Your task to perform on an android device: turn pop-ups off in chrome Image 0: 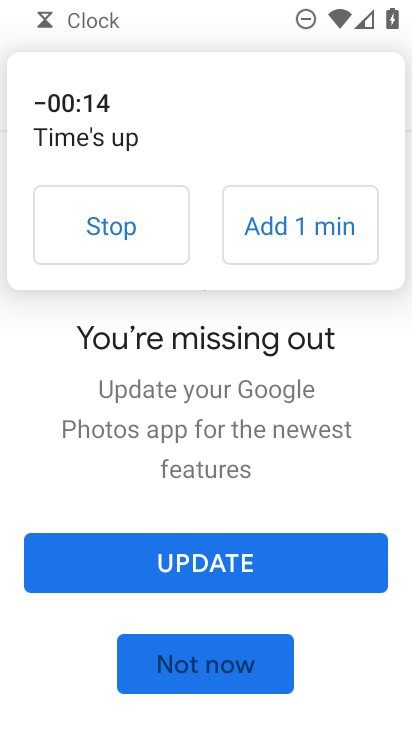
Step 0: press back button
Your task to perform on an android device: turn pop-ups off in chrome Image 1: 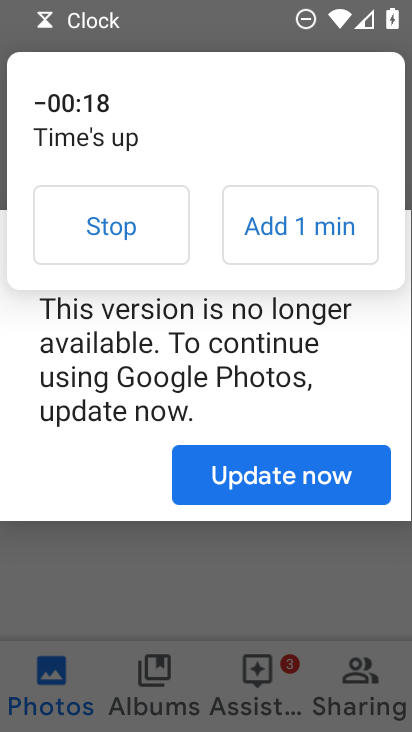
Step 1: press home button
Your task to perform on an android device: turn pop-ups off in chrome Image 2: 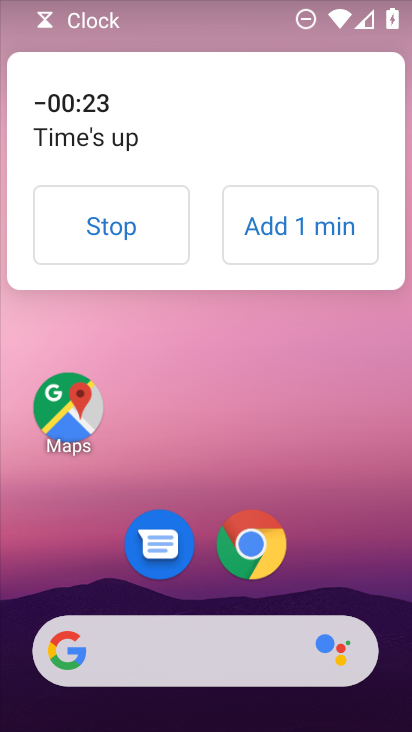
Step 2: drag from (350, 560) to (301, 68)
Your task to perform on an android device: turn pop-ups off in chrome Image 3: 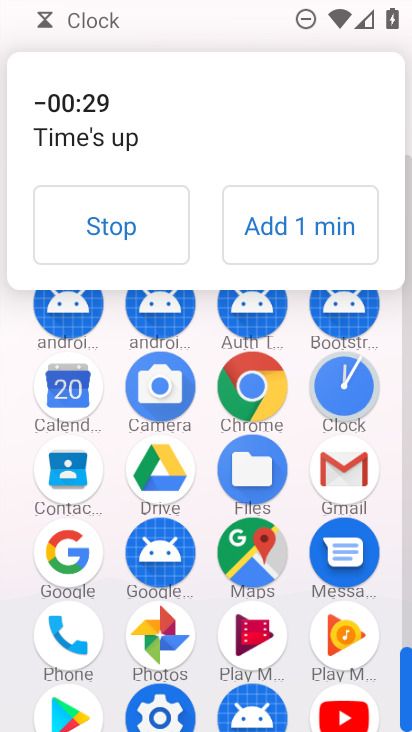
Step 3: click (252, 412)
Your task to perform on an android device: turn pop-ups off in chrome Image 4: 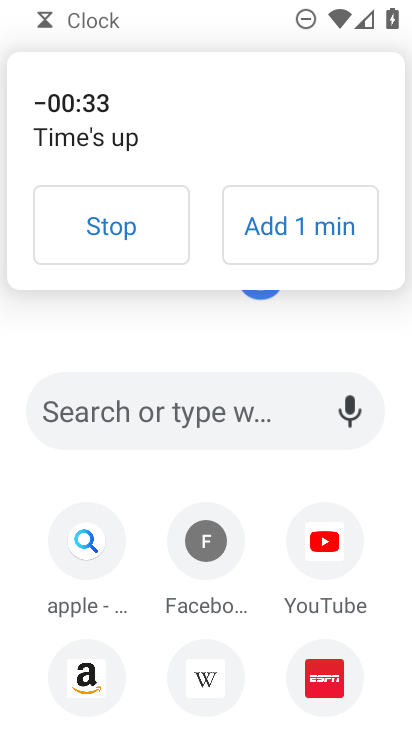
Step 4: click (111, 231)
Your task to perform on an android device: turn pop-ups off in chrome Image 5: 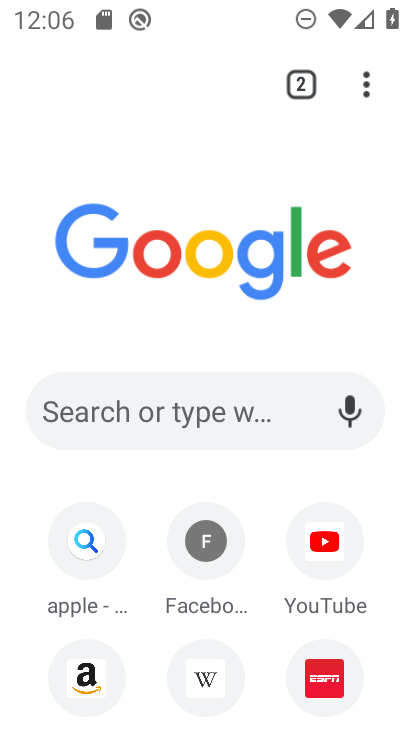
Step 5: click (368, 95)
Your task to perform on an android device: turn pop-ups off in chrome Image 6: 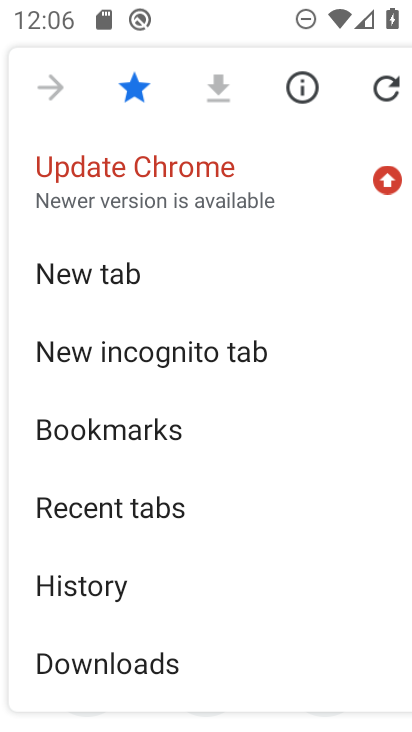
Step 6: drag from (317, 523) to (329, 376)
Your task to perform on an android device: turn pop-ups off in chrome Image 7: 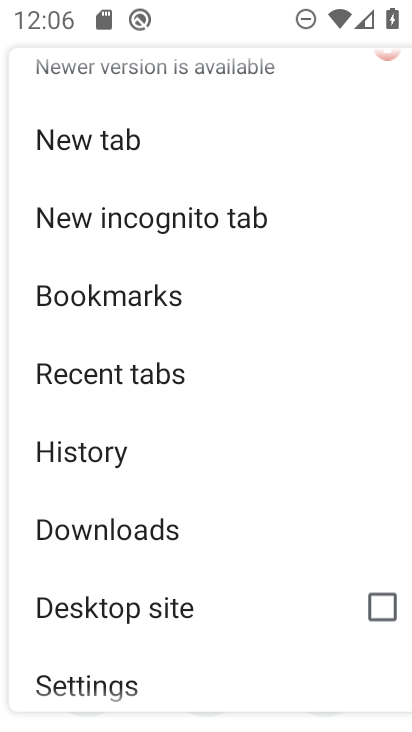
Step 7: drag from (311, 531) to (280, 359)
Your task to perform on an android device: turn pop-ups off in chrome Image 8: 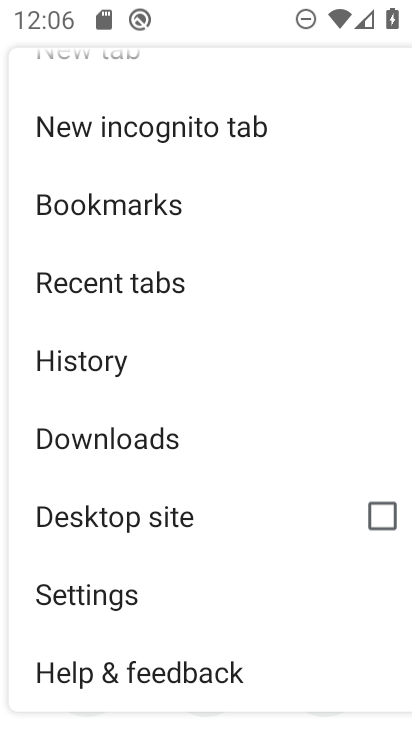
Step 8: drag from (299, 556) to (305, 418)
Your task to perform on an android device: turn pop-ups off in chrome Image 9: 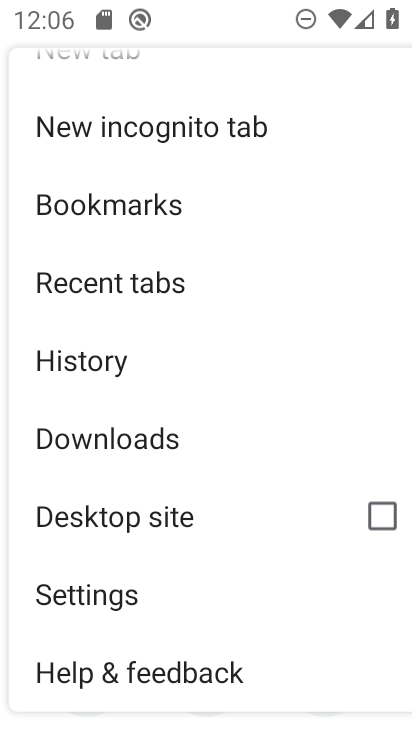
Step 9: click (145, 610)
Your task to perform on an android device: turn pop-ups off in chrome Image 10: 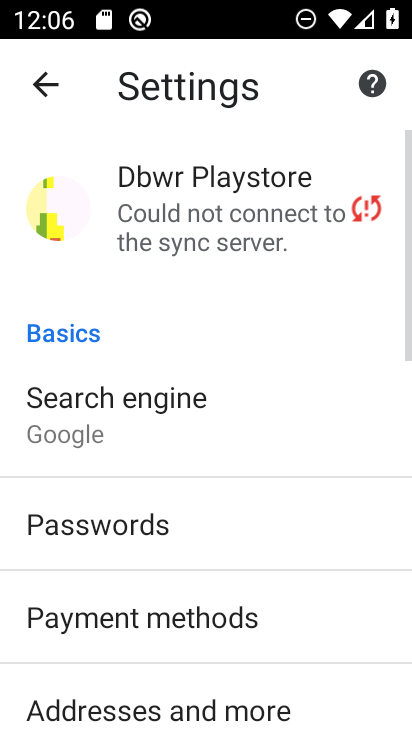
Step 10: drag from (329, 623) to (283, 478)
Your task to perform on an android device: turn pop-ups off in chrome Image 11: 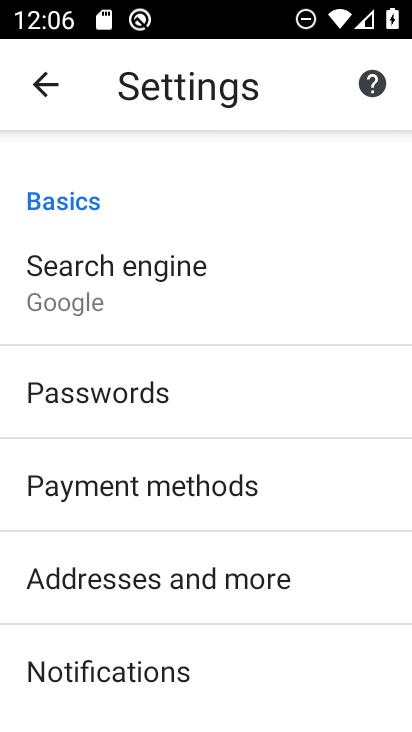
Step 11: drag from (339, 582) to (345, 464)
Your task to perform on an android device: turn pop-ups off in chrome Image 12: 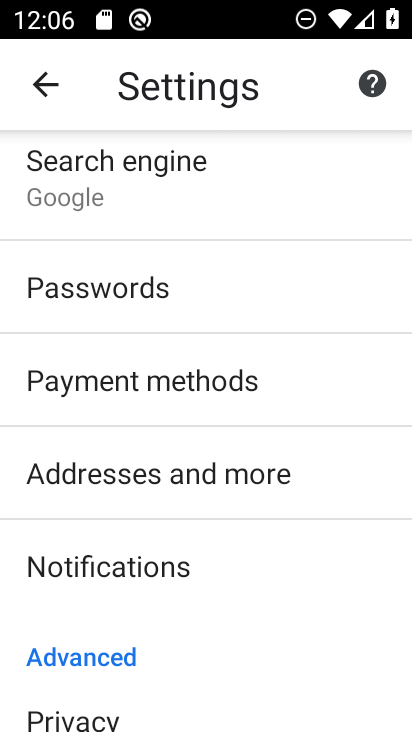
Step 12: drag from (347, 574) to (336, 472)
Your task to perform on an android device: turn pop-ups off in chrome Image 13: 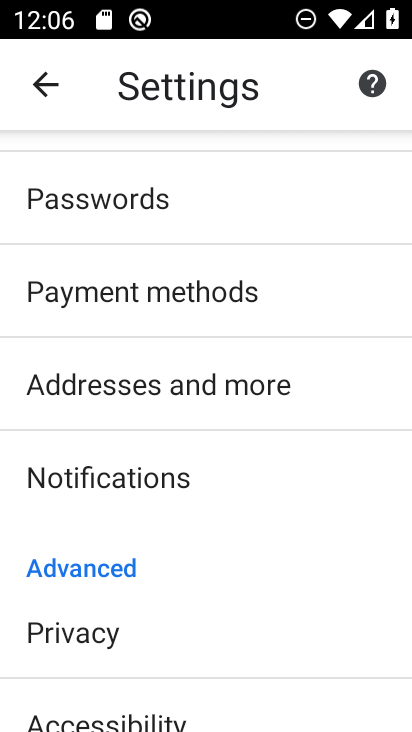
Step 13: drag from (312, 580) to (317, 428)
Your task to perform on an android device: turn pop-ups off in chrome Image 14: 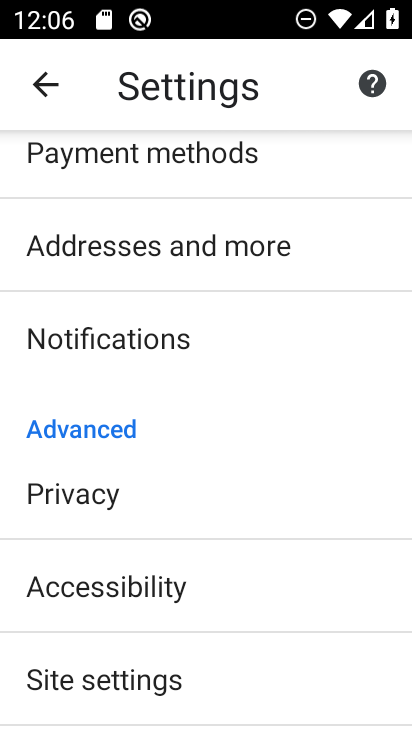
Step 14: drag from (295, 583) to (318, 451)
Your task to perform on an android device: turn pop-ups off in chrome Image 15: 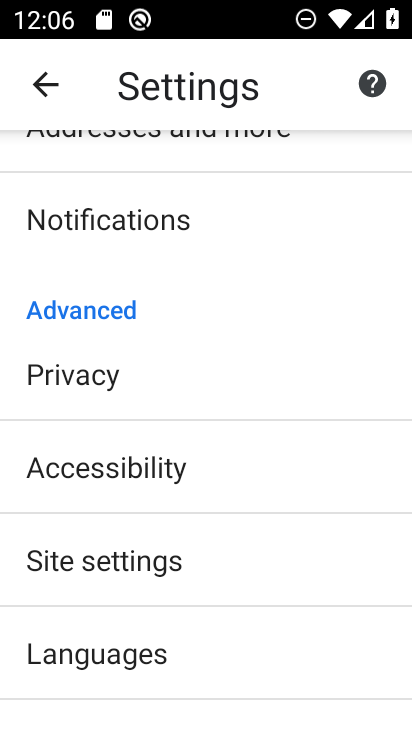
Step 15: drag from (337, 626) to (361, 498)
Your task to perform on an android device: turn pop-ups off in chrome Image 16: 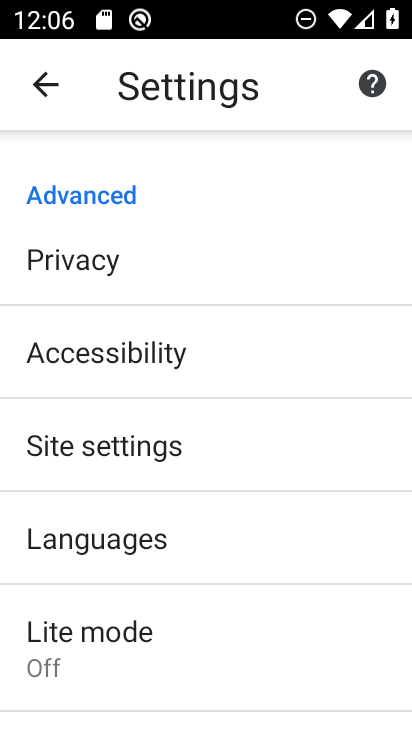
Step 16: drag from (337, 644) to (323, 444)
Your task to perform on an android device: turn pop-ups off in chrome Image 17: 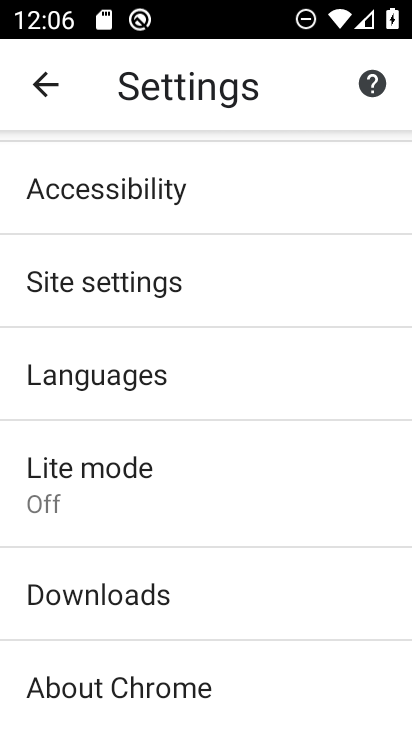
Step 17: drag from (304, 571) to (302, 464)
Your task to perform on an android device: turn pop-ups off in chrome Image 18: 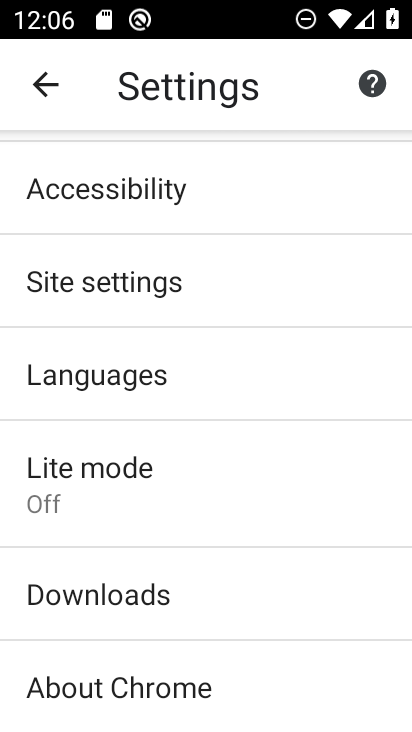
Step 18: click (160, 282)
Your task to perform on an android device: turn pop-ups off in chrome Image 19: 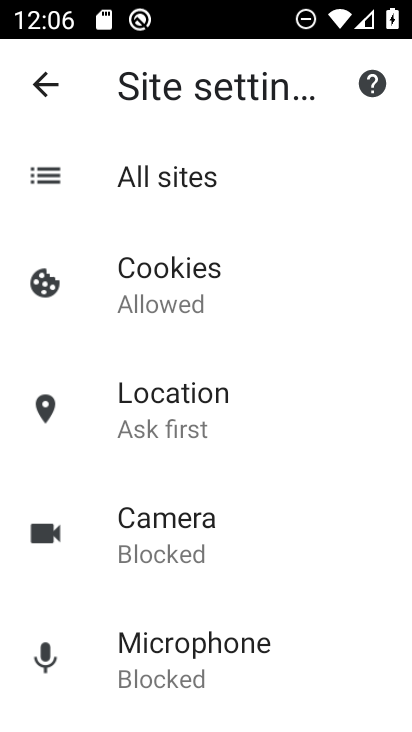
Step 19: drag from (338, 575) to (322, 459)
Your task to perform on an android device: turn pop-ups off in chrome Image 20: 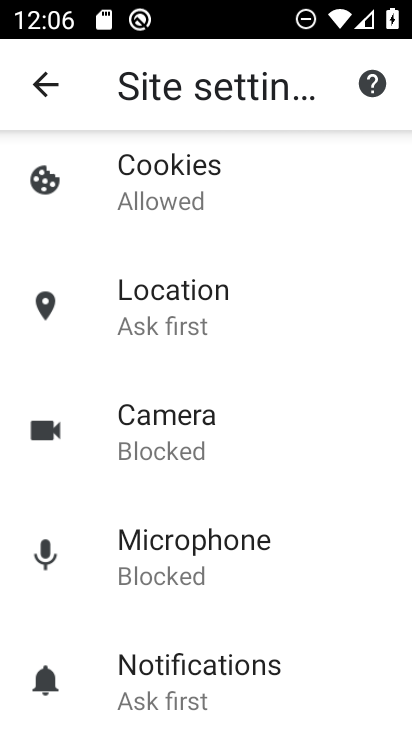
Step 20: drag from (338, 591) to (364, 462)
Your task to perform on an android device: turn pop-ups off in chrome Image 21: 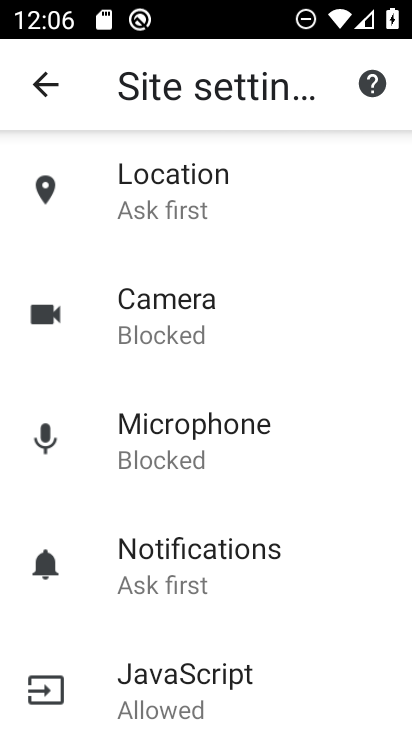
Step 21: drag from (356, 590) to (332, 409)
Your task to perform on an android device: turn pop-ups off in chrome Image 22: 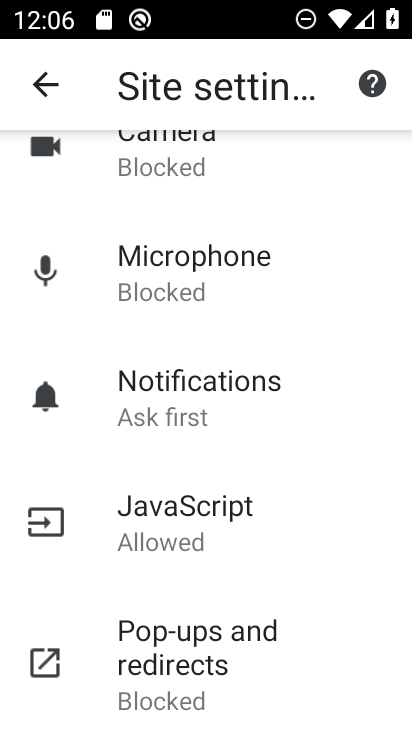
Step 22: drag from (331, 586) to (325, 449)
Your task to perform on an android device: turn pop-ups off in chrome Image 23: 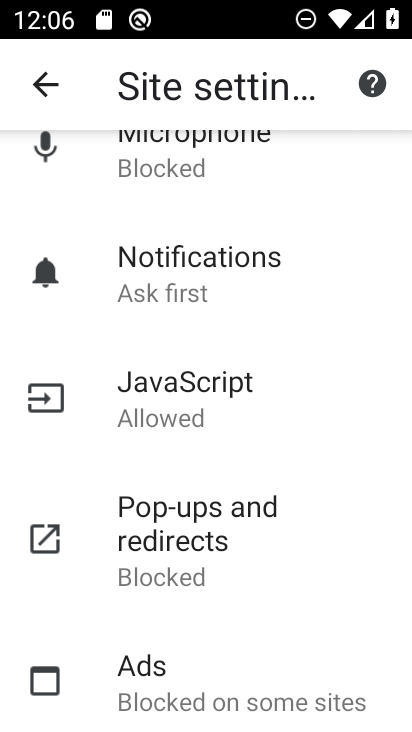
Step 23: drag from (325, 584) to (335, 419)
Your task to perform on an android device: turn pop-ups off in chrome Image 24: 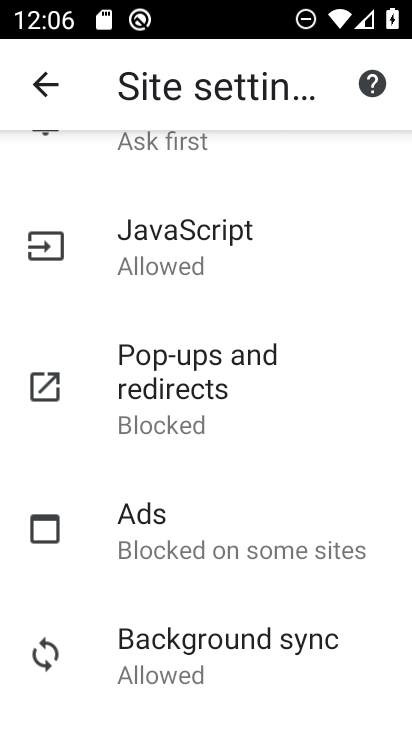
Step 24: drag from (361, 617) to (352, 443)
Your task to perform on an android device: turn pop-ups off in chrome Image 25: 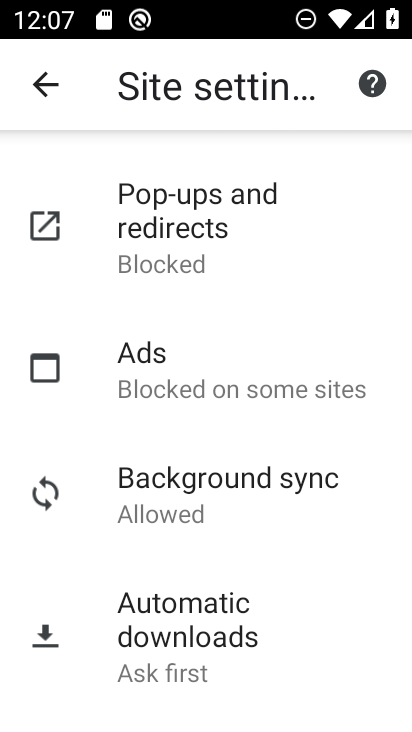
Step 25: click (196, 228)
Your task to perform on an android device: turn pop-ups off in chrome Image 26: 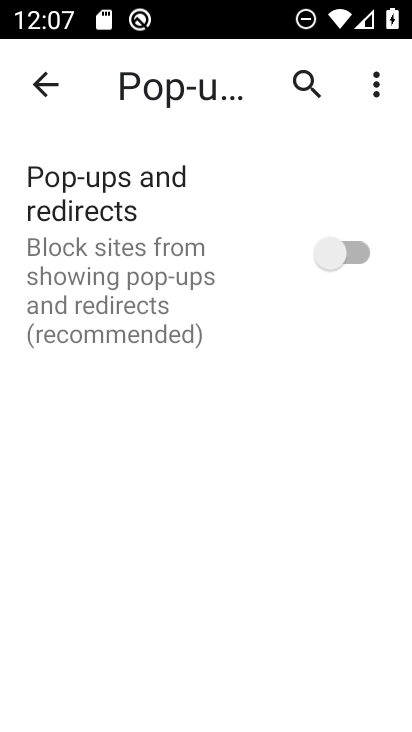
Step 26: task complete